Your task to perform on an android device: stop showing notifications on the lock screen Image 0: 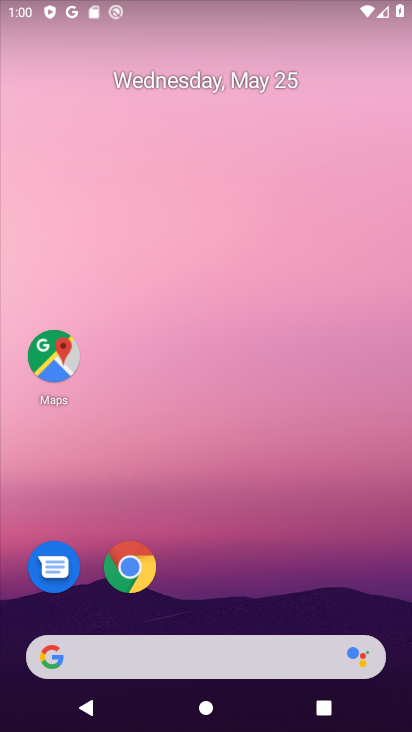
Step 0: drag from (226, 568) to (240, 17)
Your task to perform on an android device: stop showing notifications on the lock screen Image 1: 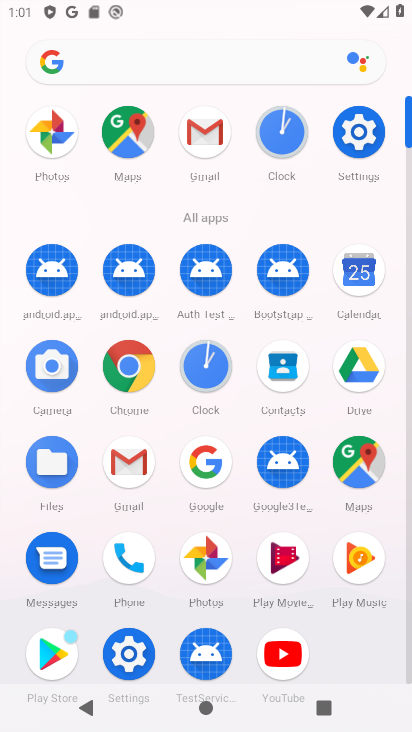
Step 1: click (133, 653)
Your task to perform on an android device: stop showing notifications on the lock screen Image 2: 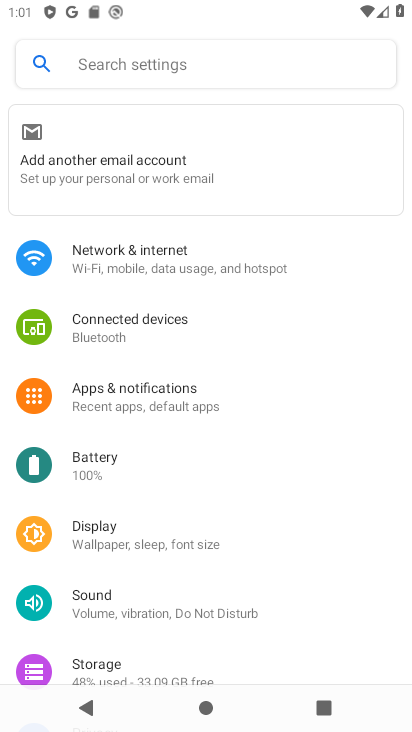
Step 2: click (202, 398)
Your task to perform on an android device: stop showing notifications on the lock screen Image 3: 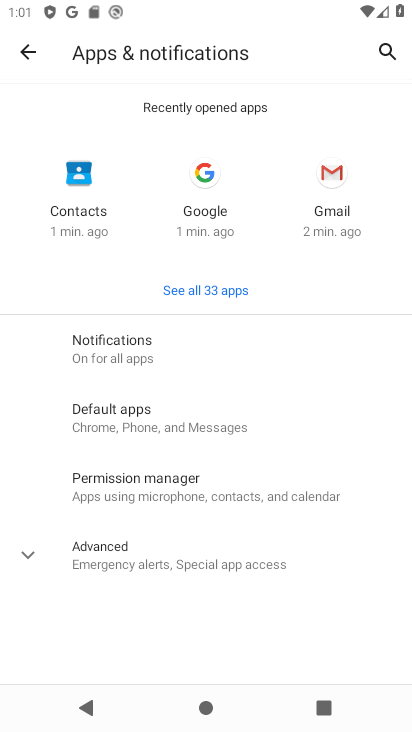
Step 3: click (199, 336)
Your task to perform on an android device: stop showing notifications on the lock screen Image 4: 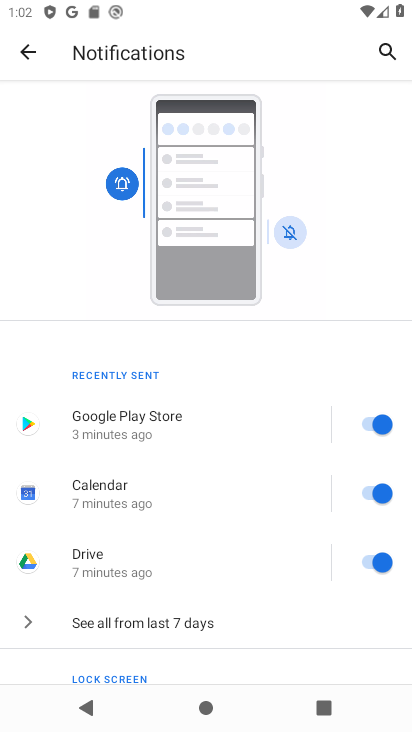
Step 4: drag from (169, 621) to (208, 342)
Your task to perform on an android device: stop showing notifications on the lock screen Image 5: 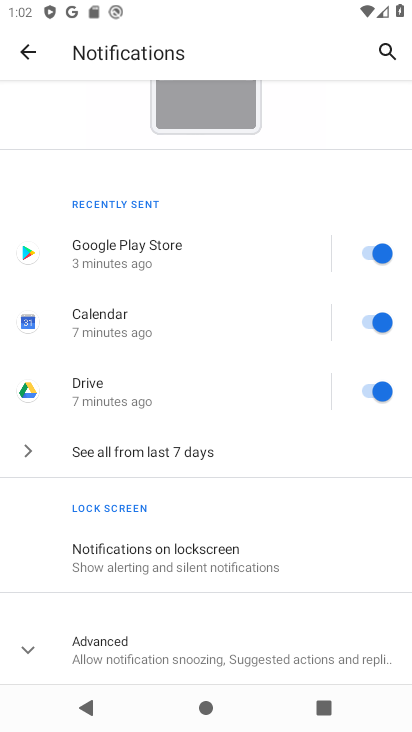
Step 5: click (142, 555)
Your task to perform on an android device: stop showing notifications on the lock screen Image 6: 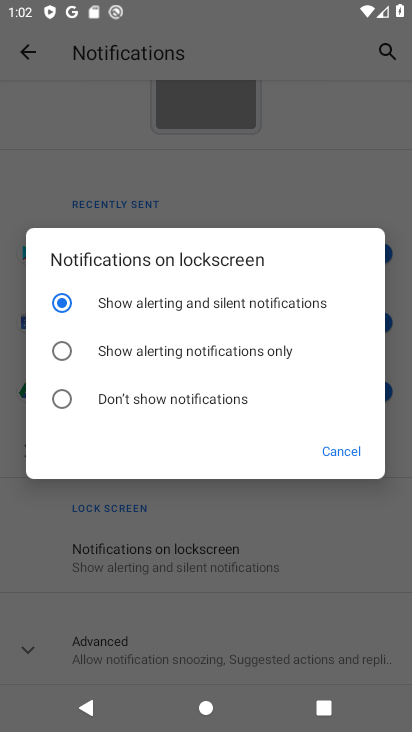
Step 6: click (145, 393)
Your task to perform on an android device: stop showing notifications on the lock screen Image 7: 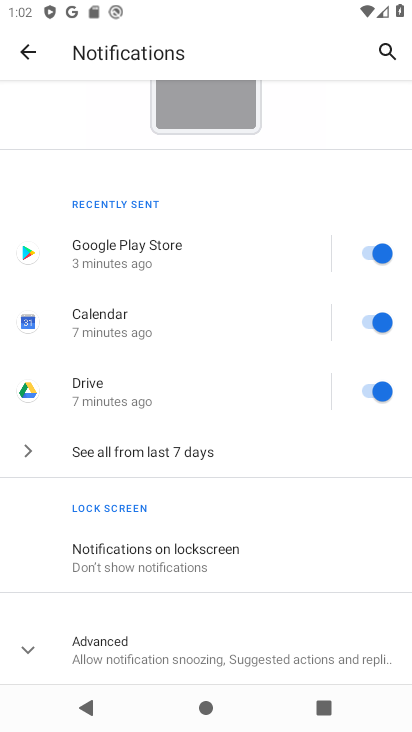
Step 7: task complete